Your task to perform on an android device: Search for Italian restaurants on Maps Image 0: 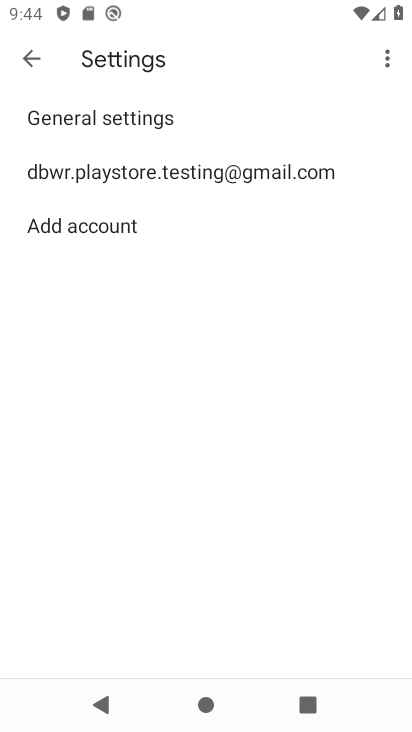
Step 0: press home button
Your task to perform on an android device: Search for Italian restaurants on Maps Image 1: 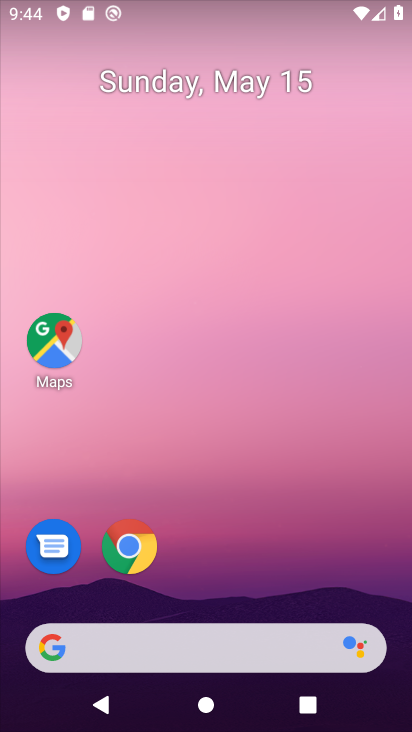
Step 1: click (42, 332)
Your task to perform on an android device: Search for Italian restaurants on Maps Image 2: 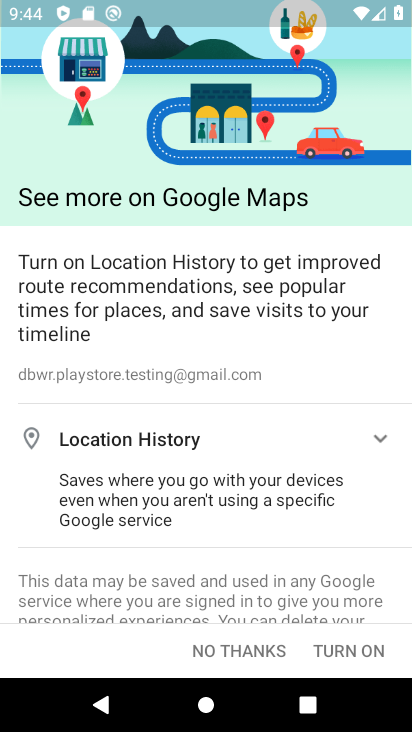
Step 2: click (366, 650)
Your task to perform on an android device: Search for Italian restaurants on Maps Image 3: 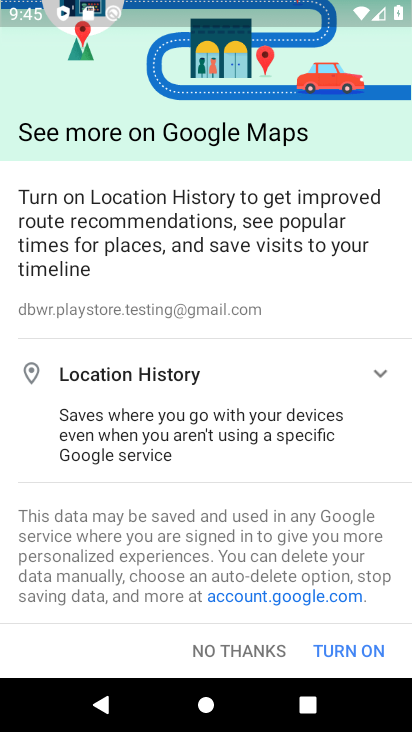
Step 3: click (332, 645)
Your task to perform on an android device: Search for Italian restaurants on Maps Image 4: 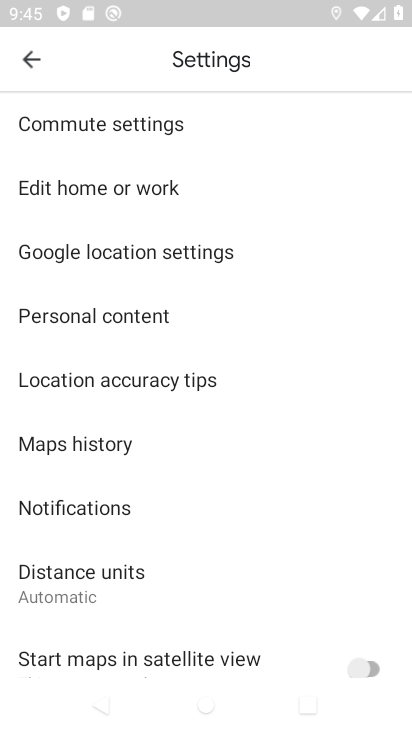
Step 4: click (37, 68)
Your task to perform on an android device: Search for Italian restaurants on Maps Image 5: 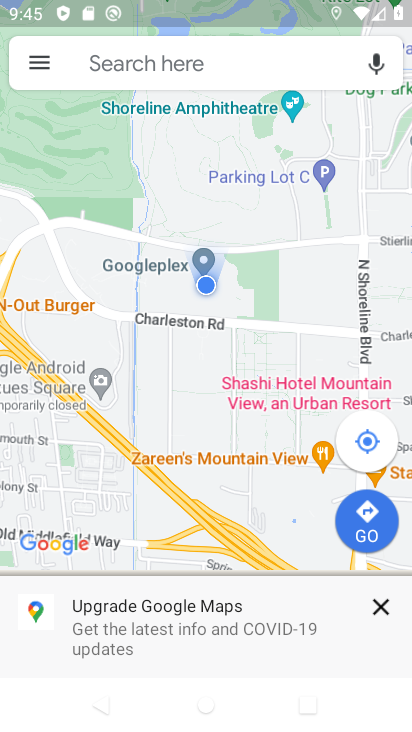
Step 5: click (112, 74)
Your task to perform on an android device: Search for Italian restaurants on Maps Image 6: 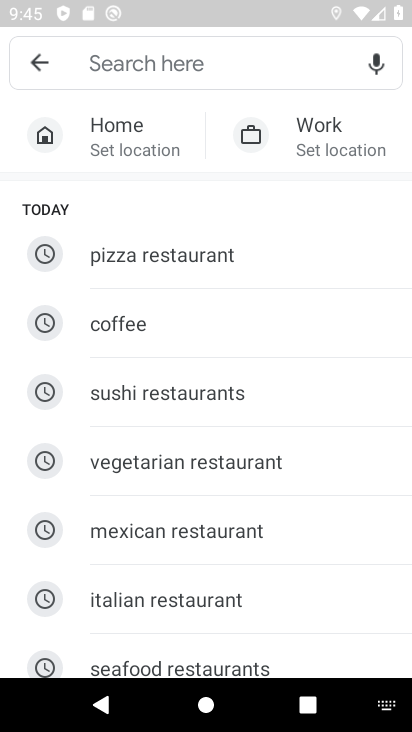
Step 6: type "Italian restaurants"
Your task to perform on an android device: Search for Italian restaurants on Maps Image 7: 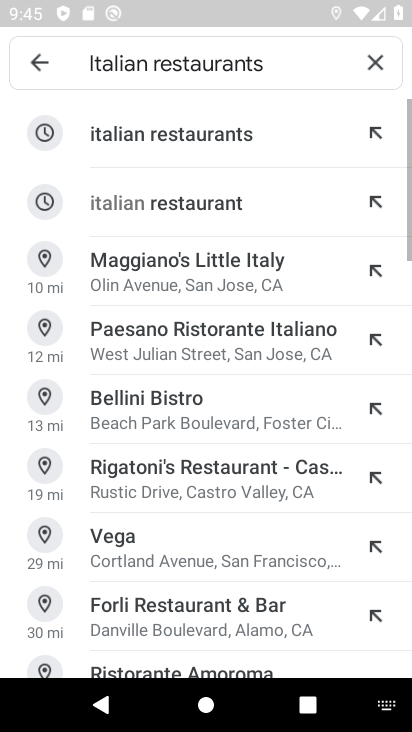
Step 7: click (284, 133)
Your task to perform on an android device: Search for Italian restaurants on Maps Image 8: 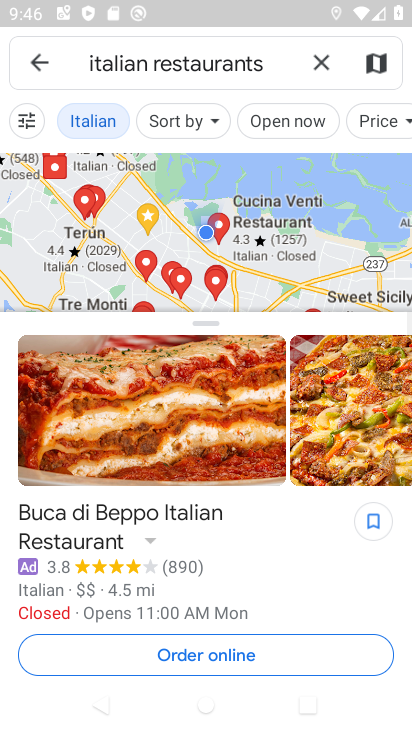
Step 8: task complete